Your task to perform on an android device: Open privacy settings Image 0: 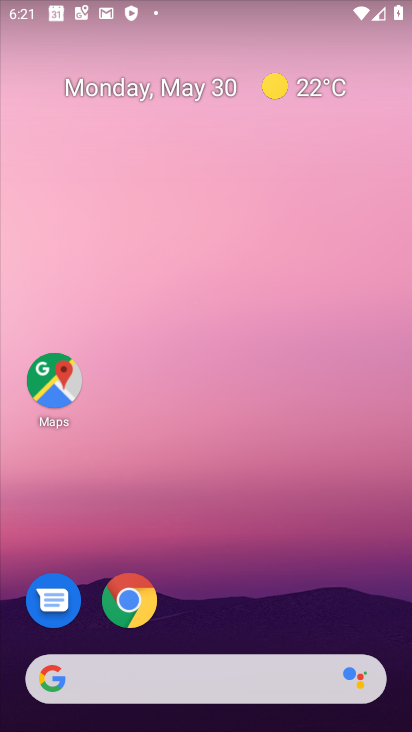
Step 0: press home button
Your task to perform on an android device: Open privacy settings Image 1: 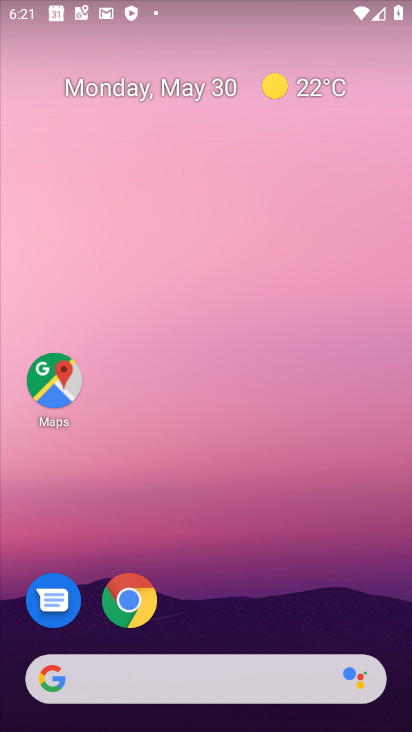
Step 1: drag from (286, 632) to (297, 195)
Your task to perform on an android device: Open privacy settings Image 2: 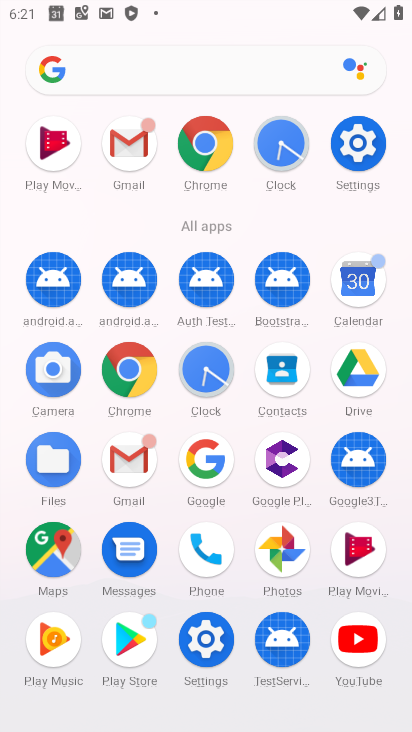
Step 2: click (372, 144)
Your task to perform on an android device: Open privacy settings Image 3: 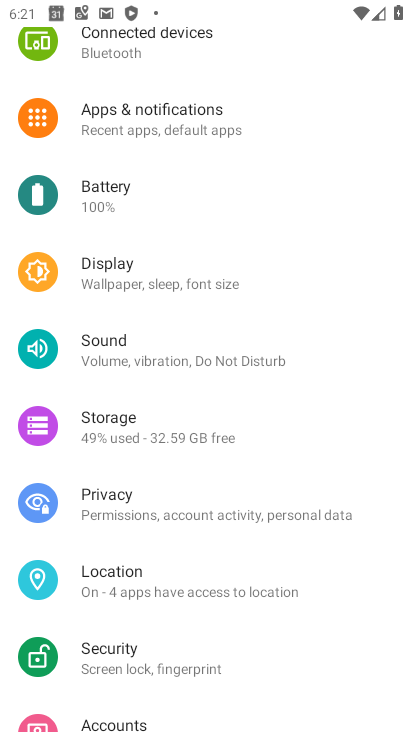
Step 3: click (99, 500)
Your task to perform on an android device: Open privacy settings Image 4: 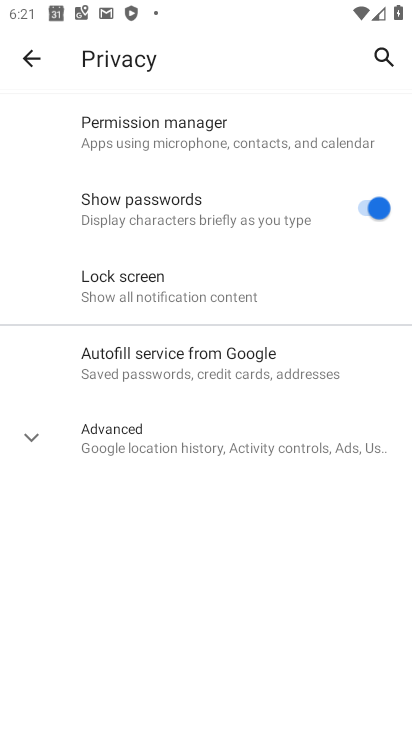
Step 4: task complete